Your task to perform on an android device: open chrome and create a bookmark for the current page Image 0: 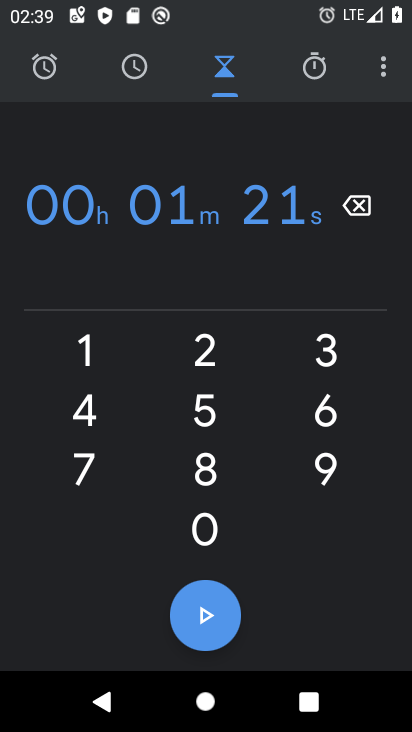
Step 0: press home button
Your task to perform on an android device: open chrome and create a bookmark for the current page Image 1: 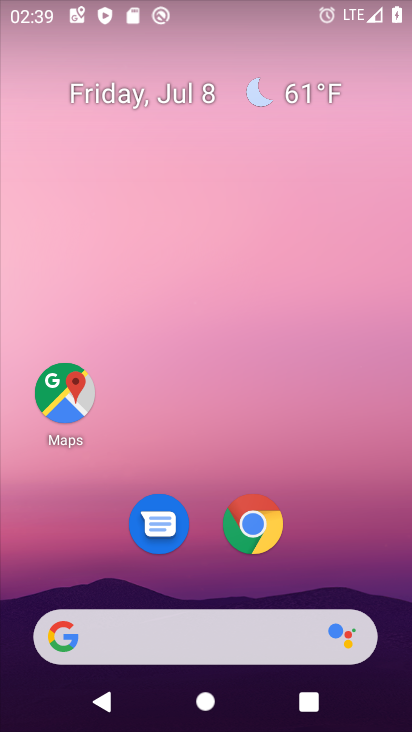
Step 1: click (276, 526)
Your task to perform on an android device: open chrome and create a bookmark for the current page Image 2: 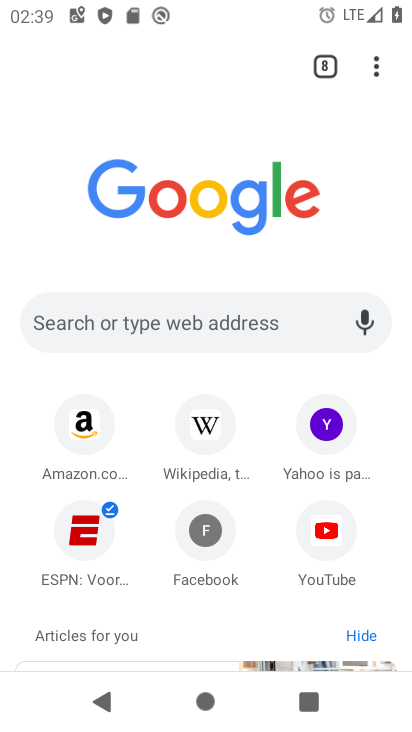
Step 2: click (379, 63)
Your task to perform on an android device: open chrome and create a bookmark for the current page Image 3: 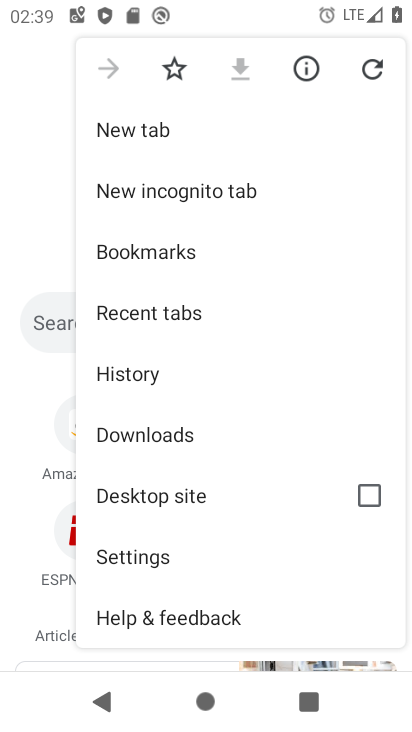
Step 3: click (173, 67)
Your task to perform on an android device: open chrome and create a bookmark for the current page Image 4: 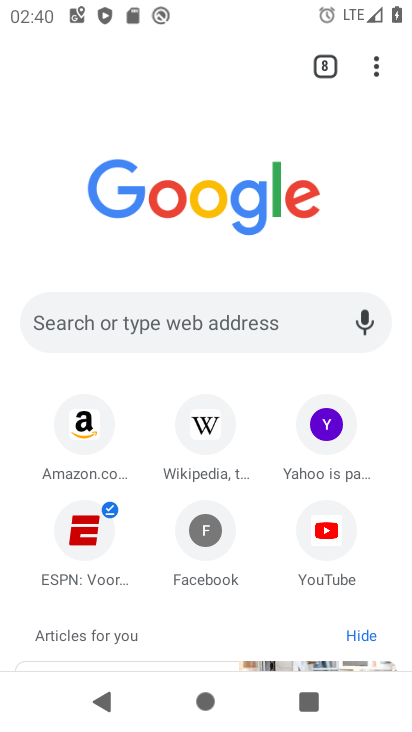
Step 4: click (379, 64)
Your task to perform on an android device: open chrome and create a bookmark for the current page Image 5: 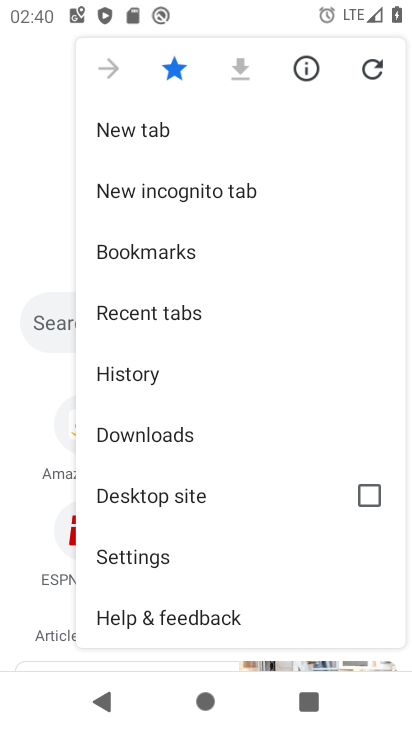
Step 5: click (53, 234)
Your task to perform on an android device: open chrome and create a bookmark for the current page Image 6: 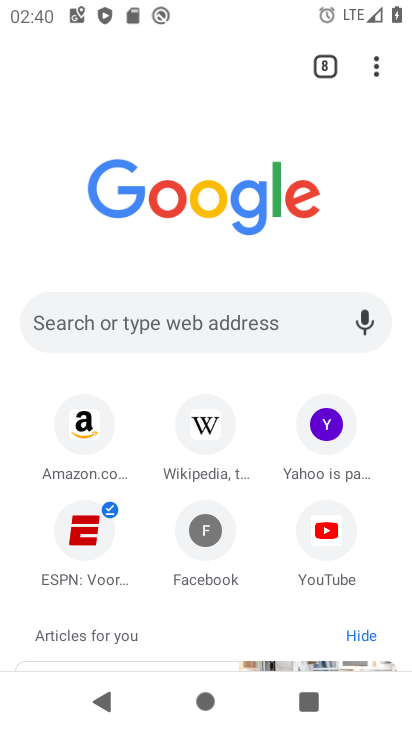
Step 6: task complete